Your task to perform on an android device: Open Reddit.com Image 0: 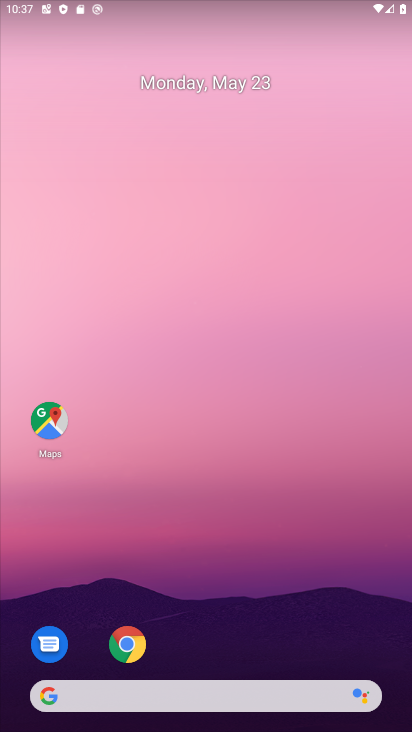
Step 0: drag from (214, 681) to (119, 145)
Your task to perform on an android device: Open Reddit.com Image 1: 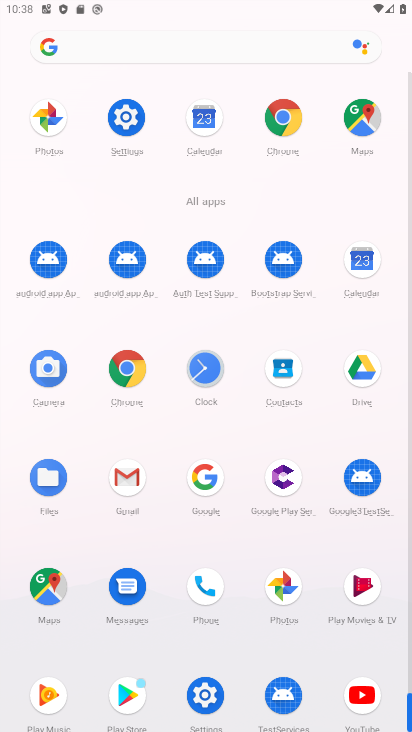
Step 1: click (290, 130)
Your task to perform on an android device: Open Reddit.com Image 2: 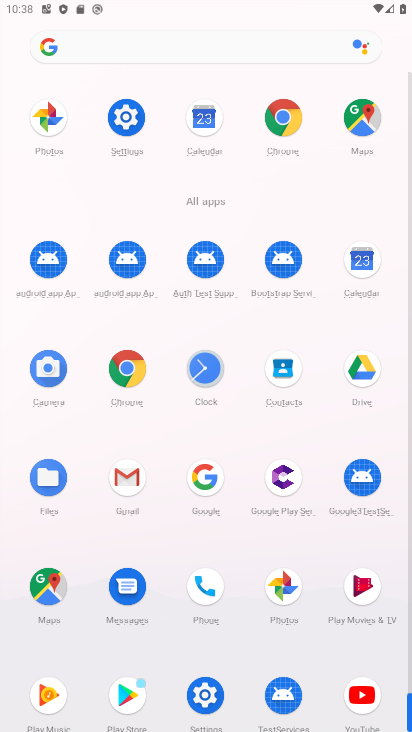
Step 2: click (290, 131)
Your task to perform on an android device: Open Reddit.com Image 3: 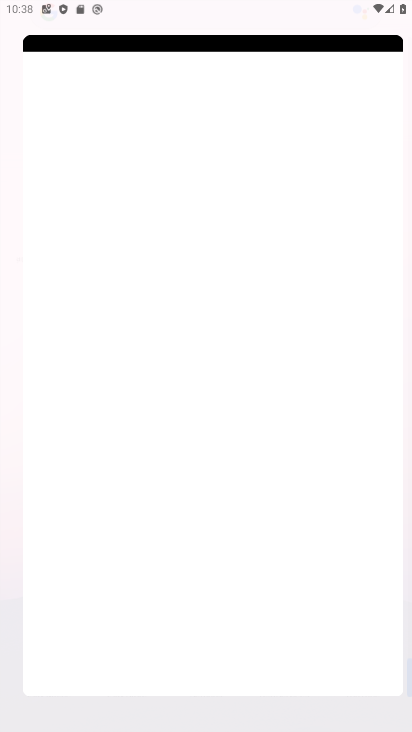
Step 3: click (286, 133)
Your task to perform on an android device: Open Reddit.com Image 4: 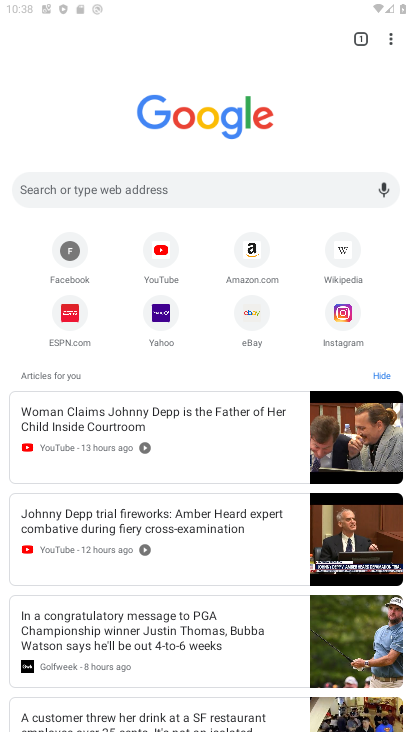
Step 4: click (271, 138)
Your task to perform on an android device: Open Reddit.com Image 5: 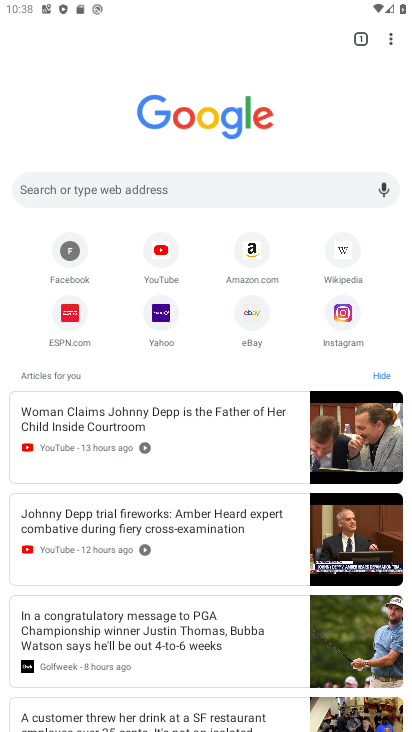
Step 5: click (69, 185)
Your task to perform on an android device: Open Reddit.com Image 6: 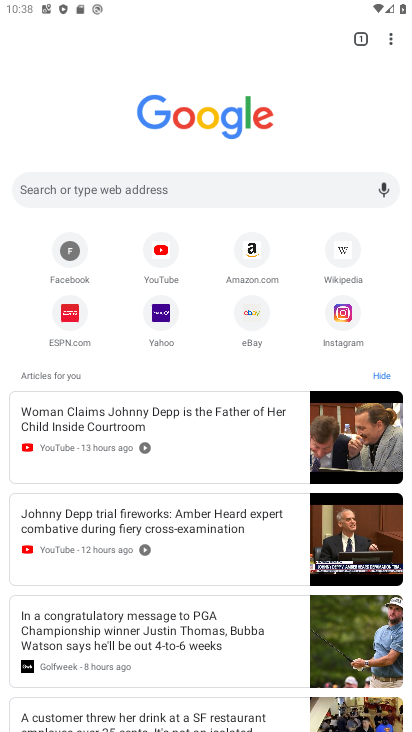
Step 6: click (69, 185)
Your task to perform on an android device: Open Reddit.com Image 7: 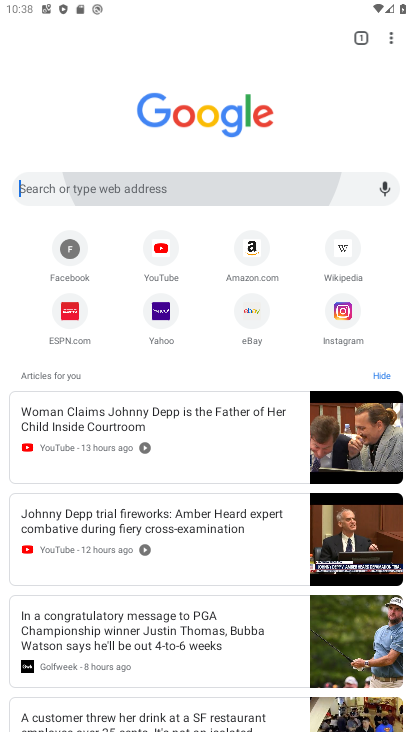
Step 7: click (69, 185)
Your task to perform on an android device: Open Reddit.com Image 8: 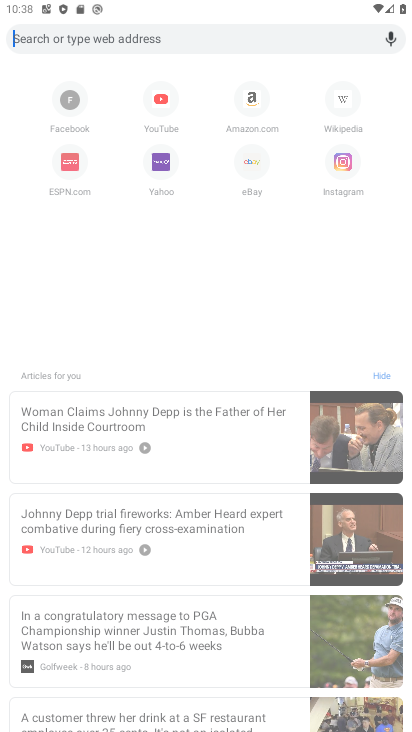
Step 8: click (69, 185)
Your task to perform on an android device: Open Reddit.com Image 9: 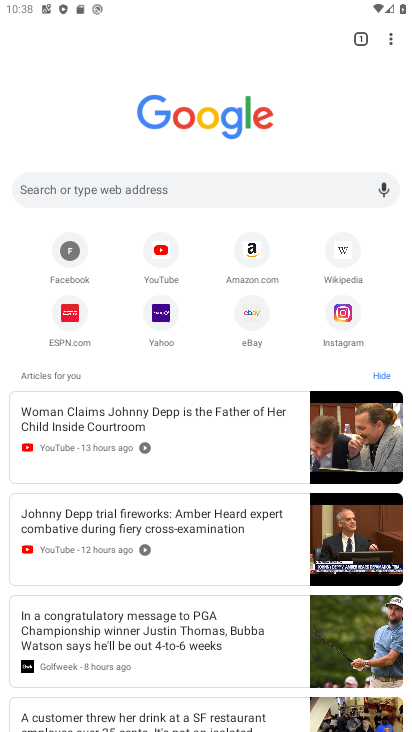
Step 9: click (60, 186)
Your task to perform on an android device: Open Reddit.com Image 10: 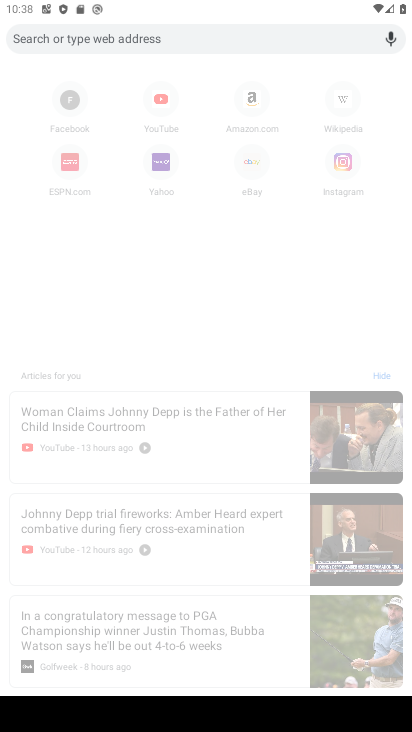
Step 10: type "reddit.com"
Your task to perform on an android device: Open Reddit.com Image 11: 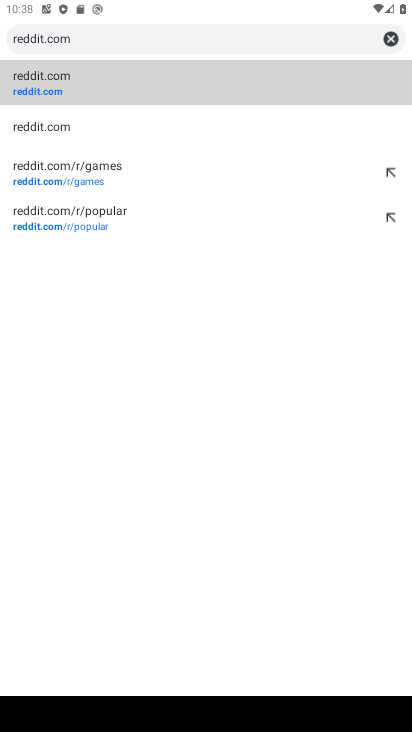
Step 11: click (51, 87)
Your task to perform on an android device: Open Reddit.com Image 12: 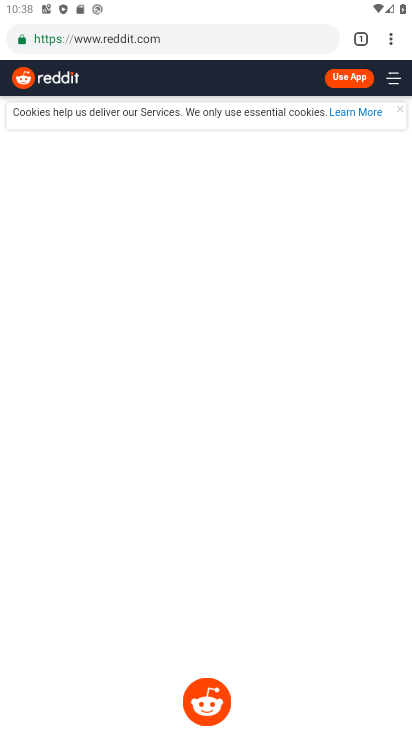
Step 12: task complete